Your task to perform on an android device: install app "Fetch Rewards" Image 0: 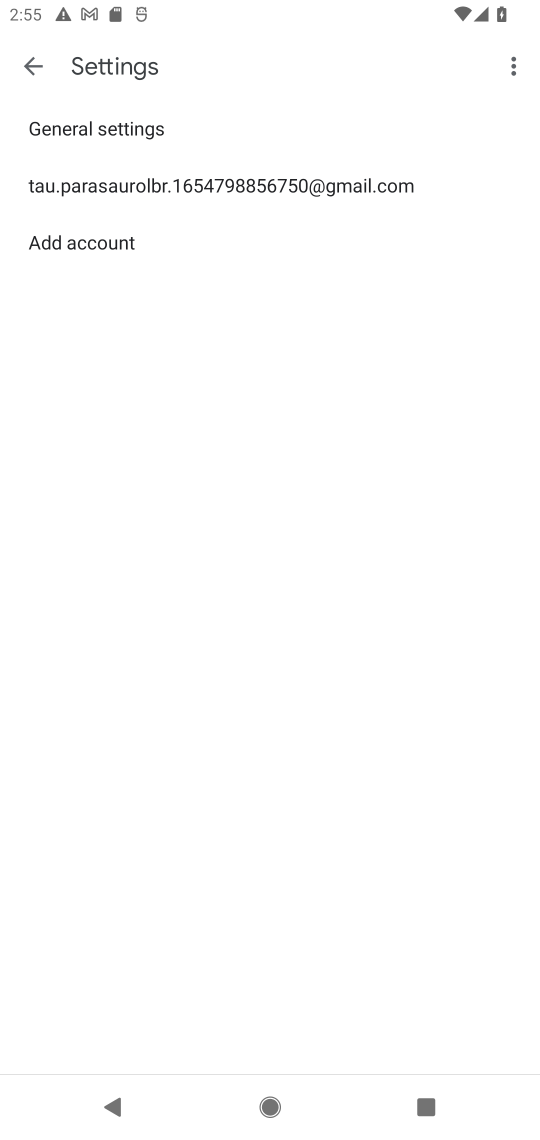
Step 0: press home button
Your task to perform on an android device: install app "Fetch Rewards" Image 1: 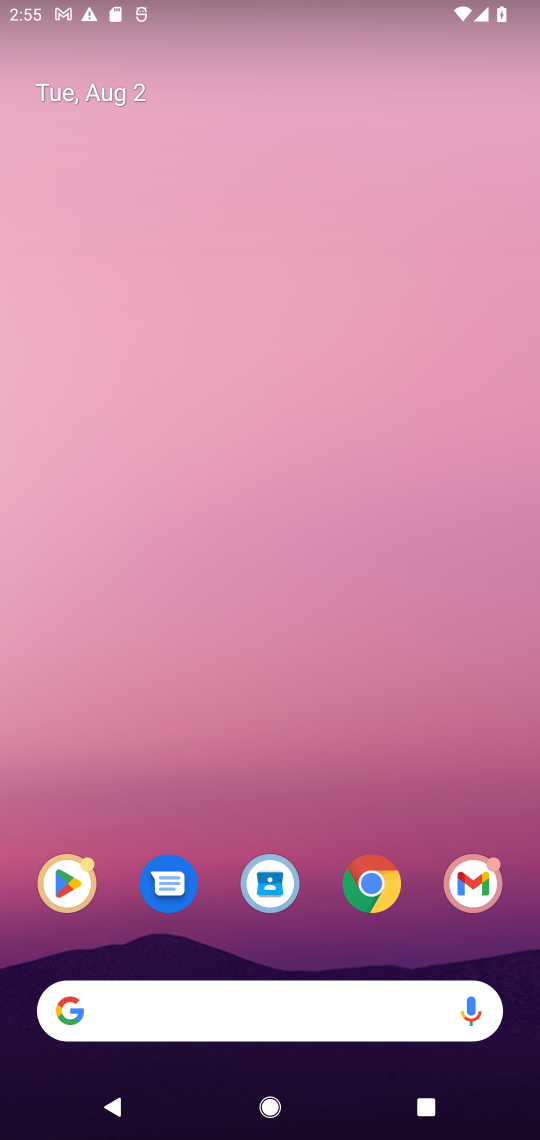
Step 1: click (52, 891)
Your task to perform on an android device: install app "Fetch Rewards" Image 2: 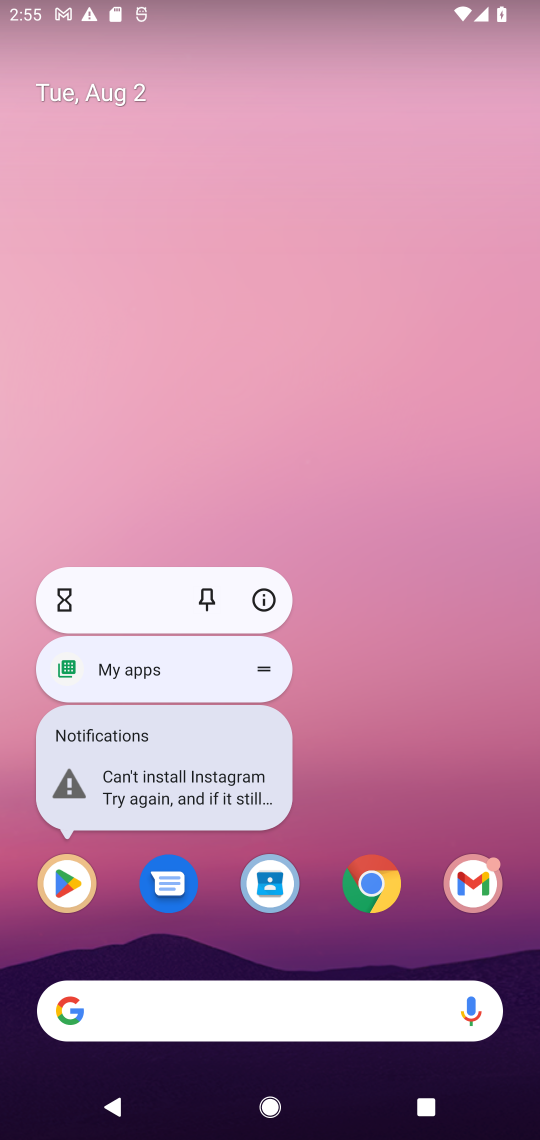
Step 2: click (52, 891)
Your task to perform on an android device: install app "Fetch Rewards" Image 3: 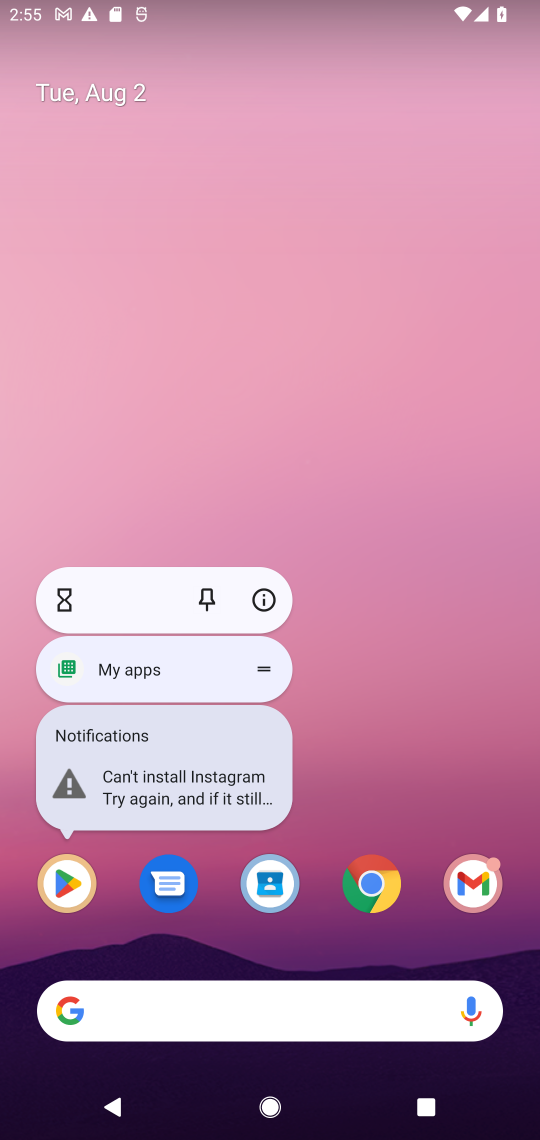
Step 3: click (52, 891)
Your task to perform on an android device: install app "Fetch Rewards" Image 4: 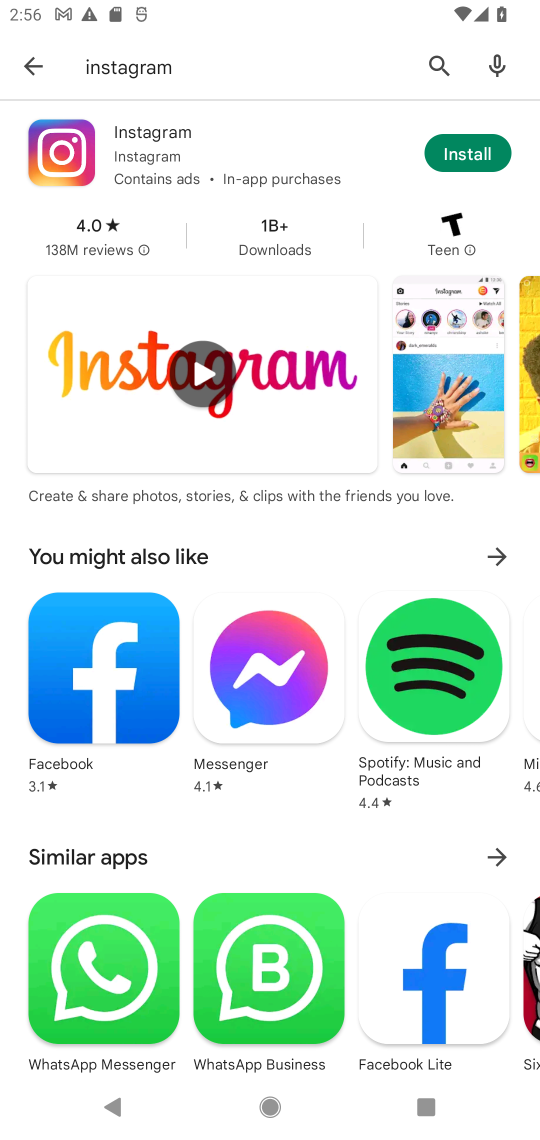
Step 4: click (447, 55)
Your task to perform on an android device: install app "Fetch Rewards" Image 5: 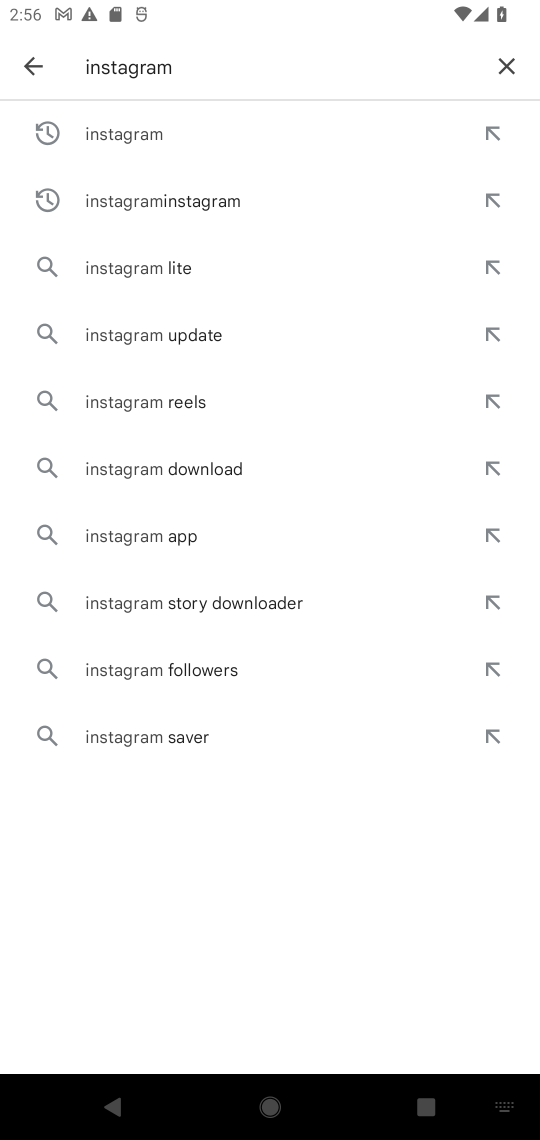
Step 5: click (526, 71)
Your task to perform on an android device: install app "Fetch Rewards" Image 6: 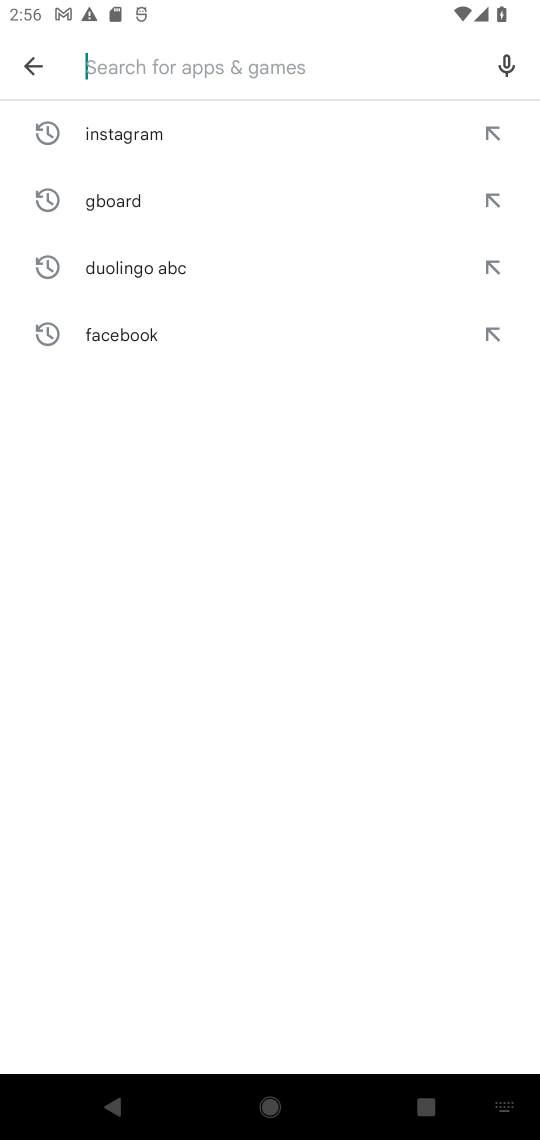
Step 6: type "Fetch Rewards"
Your task to perform on an android device: install app "Fetch Rewards" Image 7: 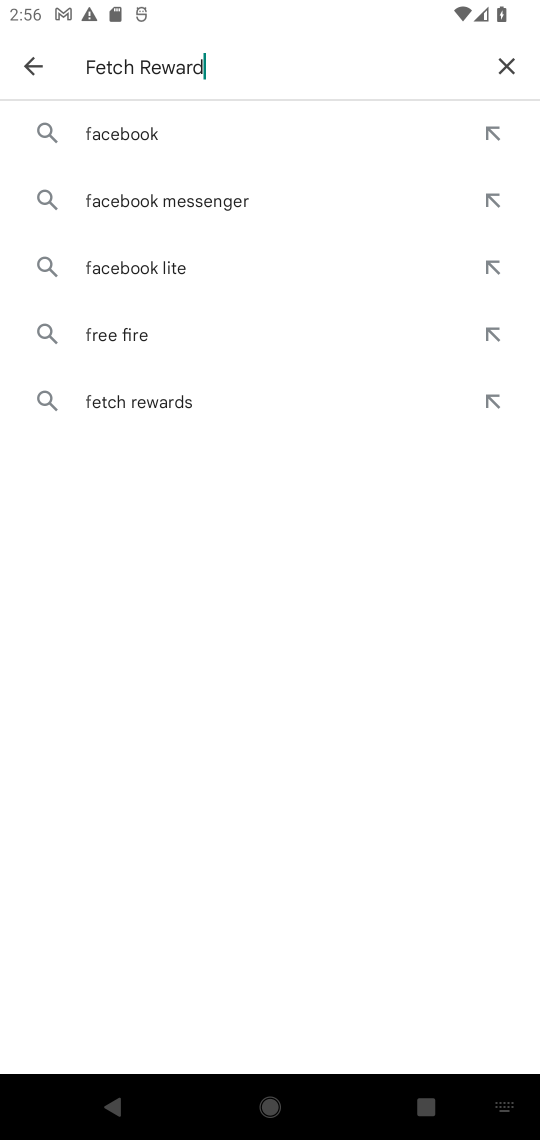
Step 7: type ""
Your task to perform on an android device: install app "Fetch Rewards" Image 8: 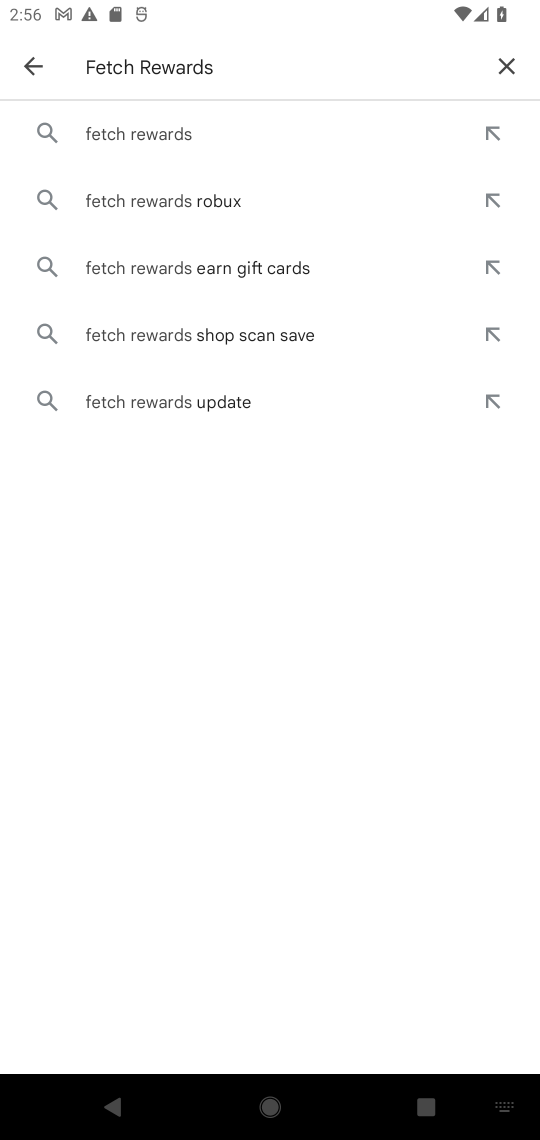
Step 8: click (102, 137)
Your task to perform on an android device: install app "Fetch Rewards" Image 9: 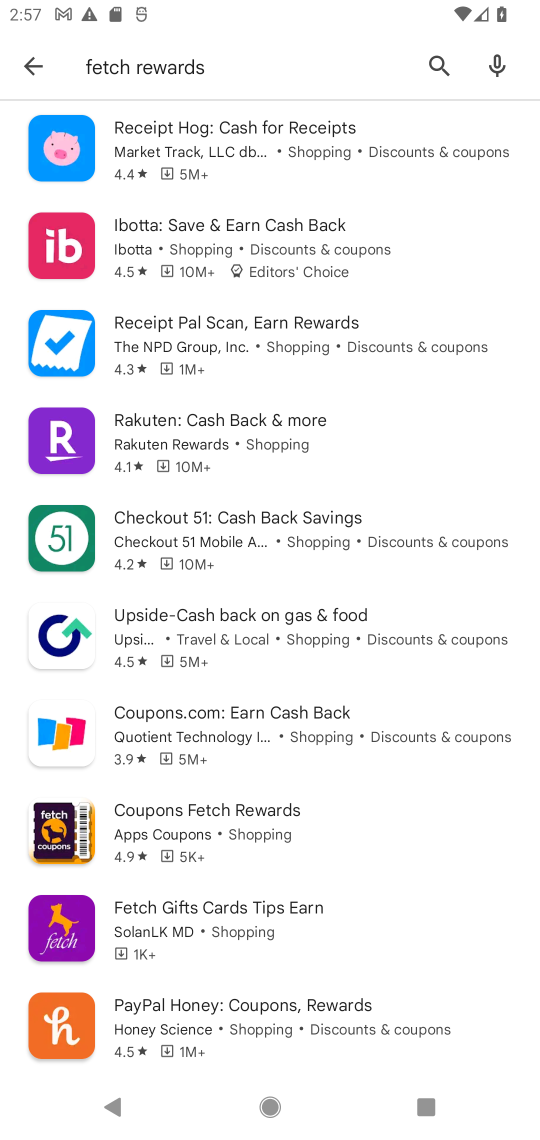
Step 9: task complete